Your task to perform on an android device: toggle sleep mode Image 0: 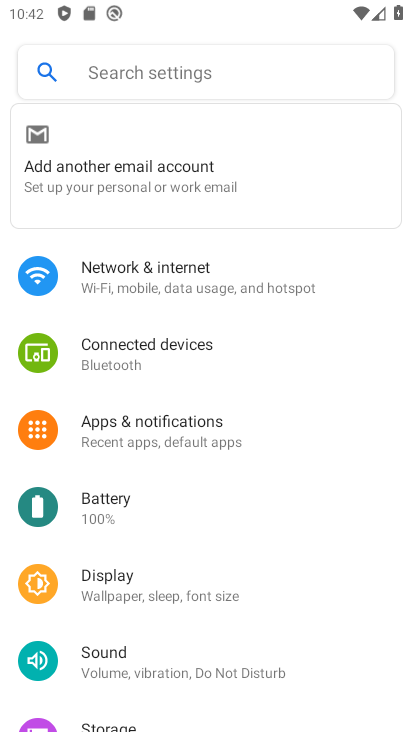
Step 0: drag from (297, 634) to (297, 510)
Your task to perform on an android device: toggle sleep mode Image 1: 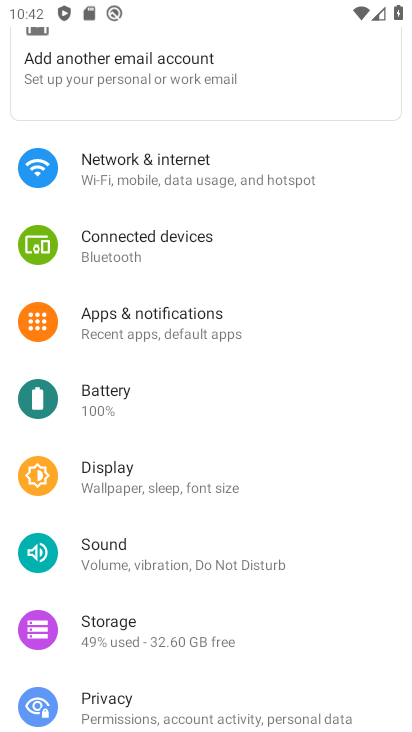
Step 1: drag from (332, 668) to (334, 546)
Your task to perform on an android device: toggle sleep mode Image 2: 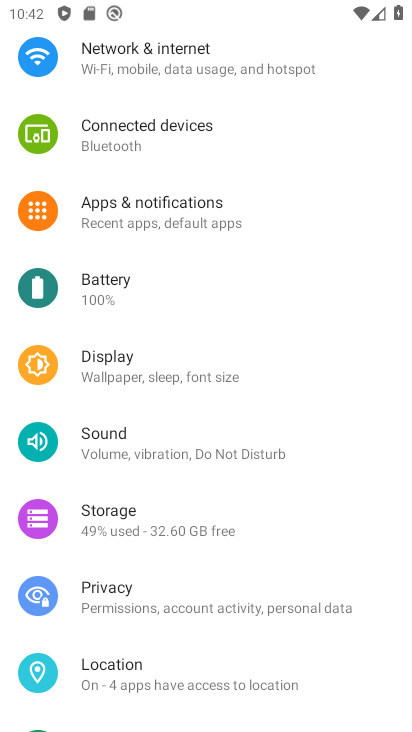
Step 2: click (347, 642)
Your task to perform on an android device: toggle sleep mode Image 3: 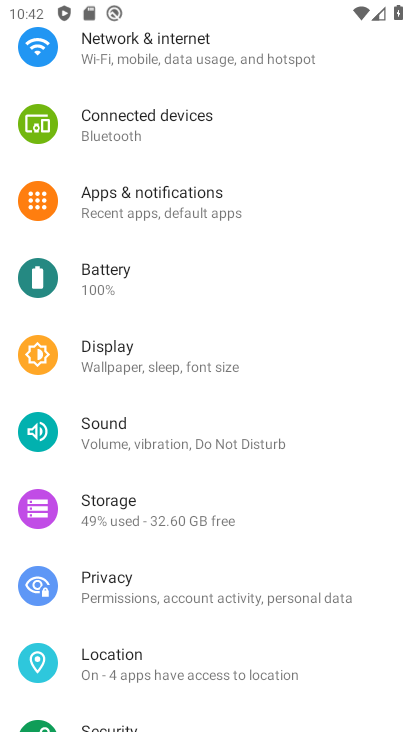
Step 3: drag from (349, 688) to (351, 576)
Your task to perform on an android device: toggle sleep mode Image 4: 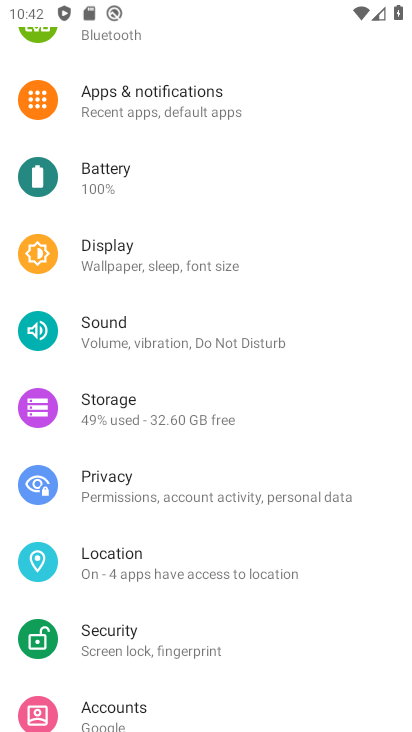
Step 4: drag from (340, 661) to (345, 627)
Your task to perform on an android device: toggle sleep mode Image 5: 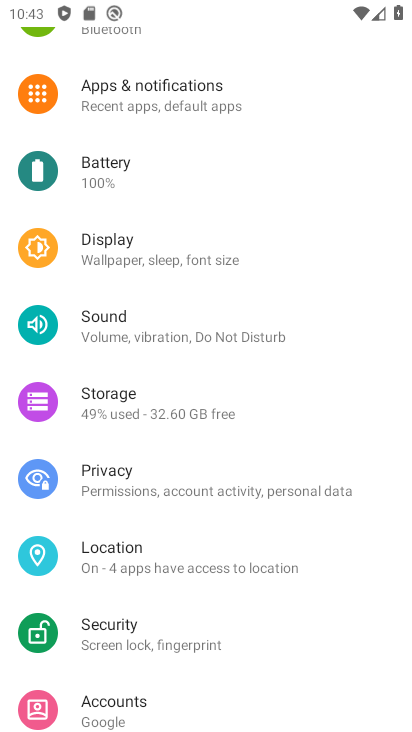
Step 5: drag from (338, 706) to (347, 639)
Your task to perform on an android device: toggle sleep mode Image 6: 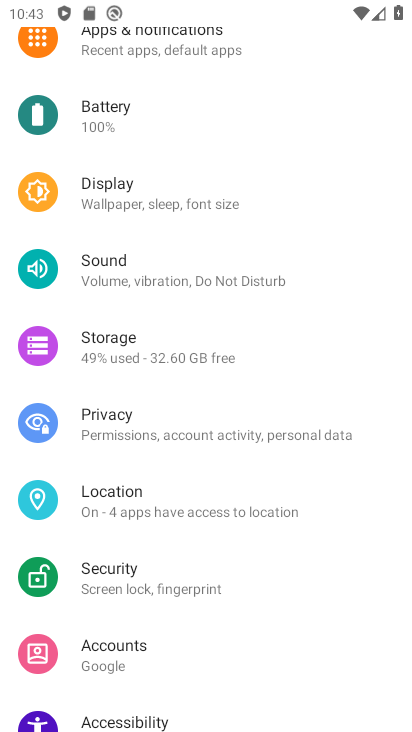
Step 6: drag from (327, 685) to (336, 557)
Your task to perform on an android device: toggle sleep mode Image 7: 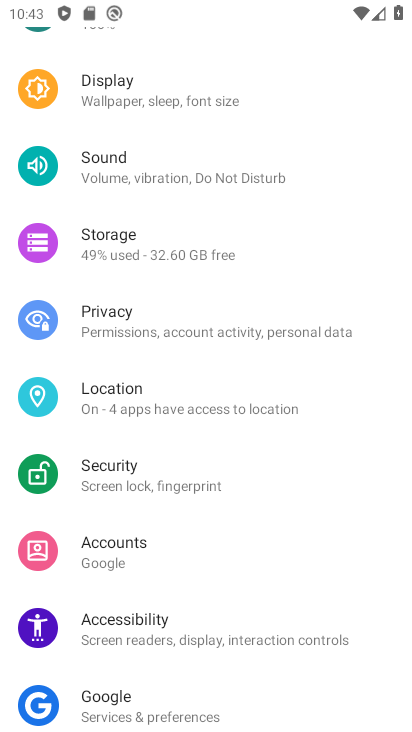
Step 7: drag from (339, 651) to (342, 590)
Your task to perform on an android device: toggle sleep mode Image 8: 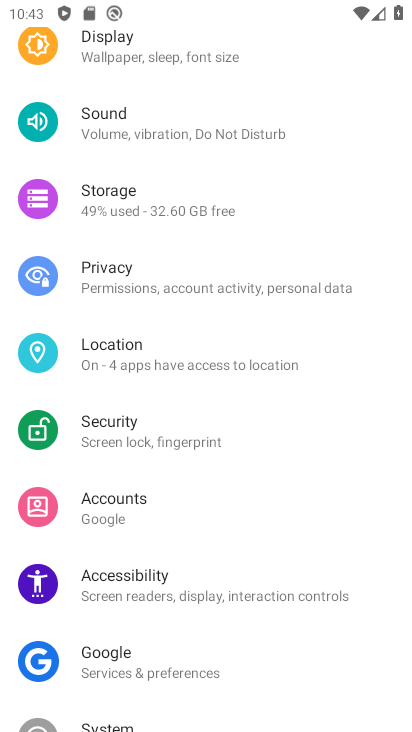
Step 8: drag from (341, 576) to (344, 613)
Your task to perform on an android device: toggle sleep mode Image 9: 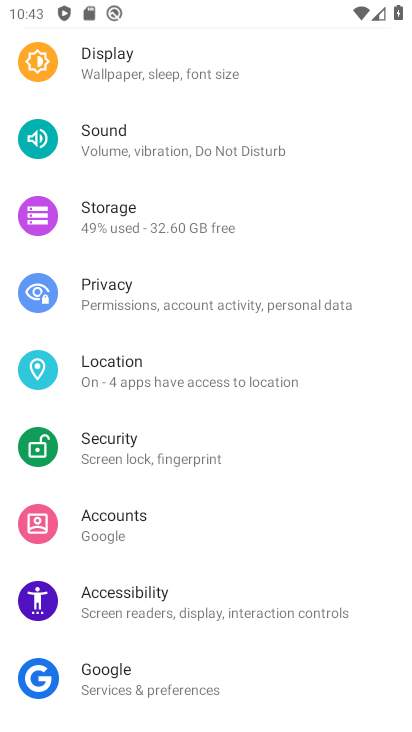
Step 9: drag from (349, 513) to (361, 600)
Your task to perform on an android device: toggle sleep mode Image 10: 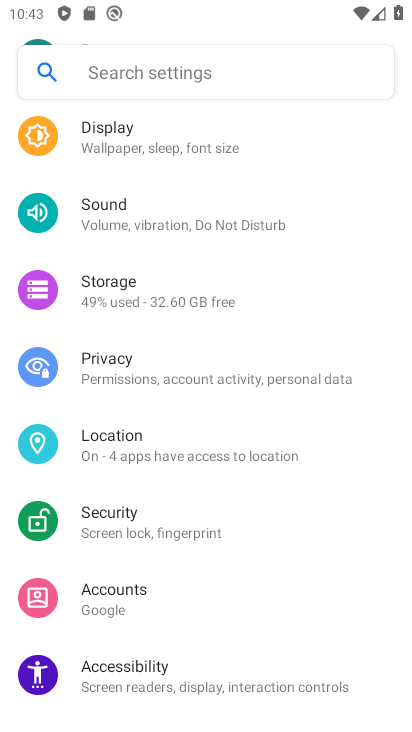
Step 10: drag from (361, 492) to (376, 573)
Your task to perform on an android device: toggle sleep mode Image 11: 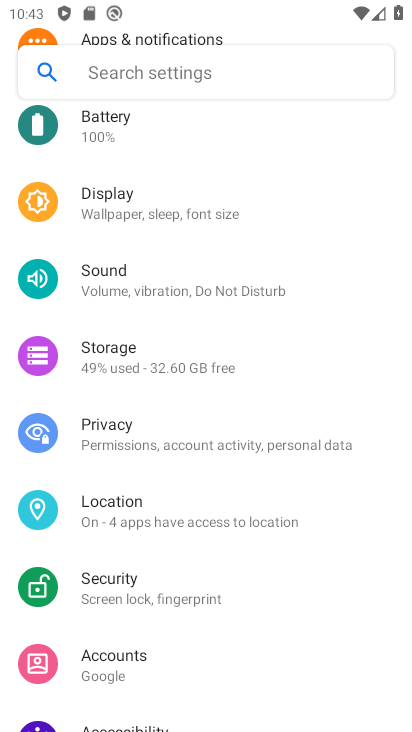
Step 11: drag from (379, 466) to (394, 556)
Your task to perform on an android device: toggle sleep mode Image 12: 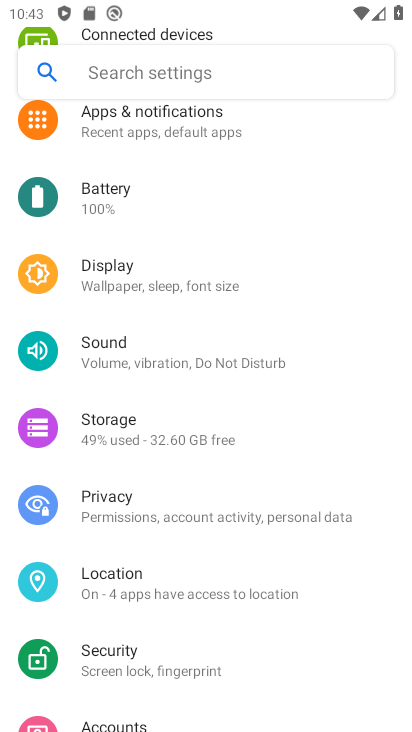
Step 12: drag from (350, 303) to (345, 443)
Your task to perform on an android device: toggle sleep mode Image 13: 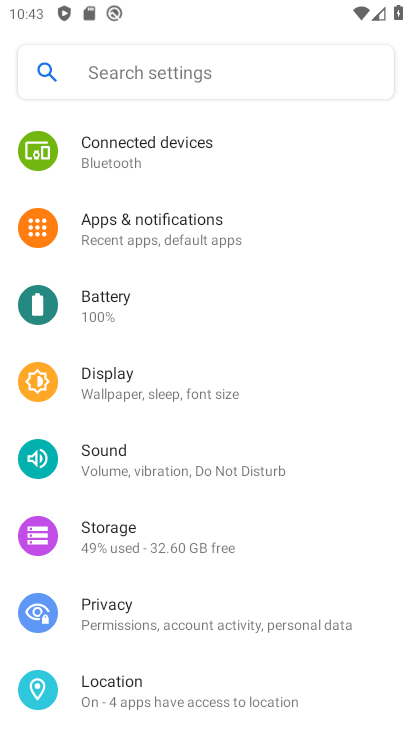
Step 13: click (263, 393)
Your task to perform on an android device: toggle sleep mode Image 14: 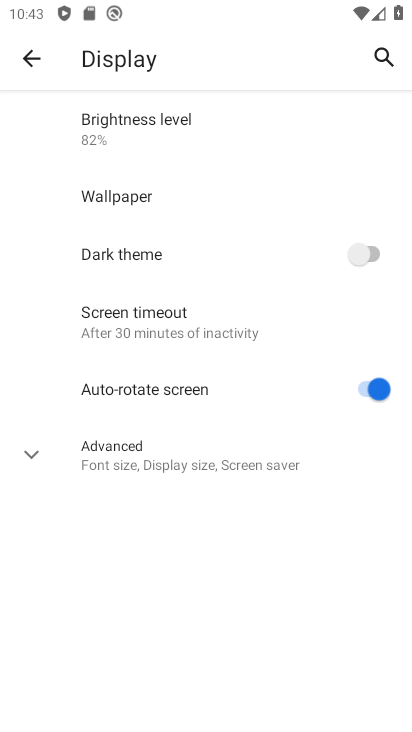
Step 14: click (257, 479)
Your task to perform on an android device: toggle sleep mode Image 15: 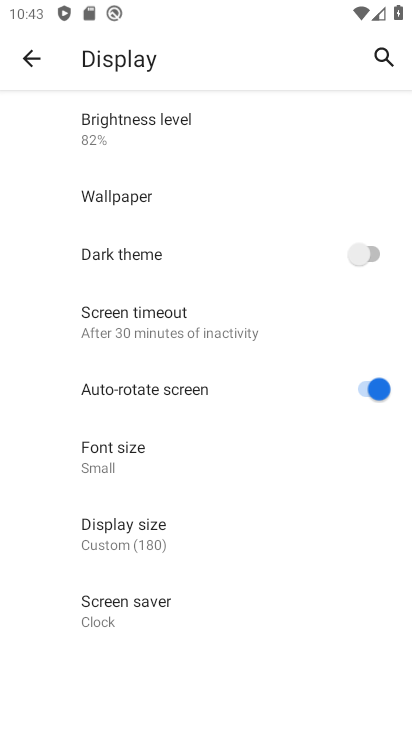
Step 15: task complete